Your task to perform on an android device: Go to eBay Image 0: 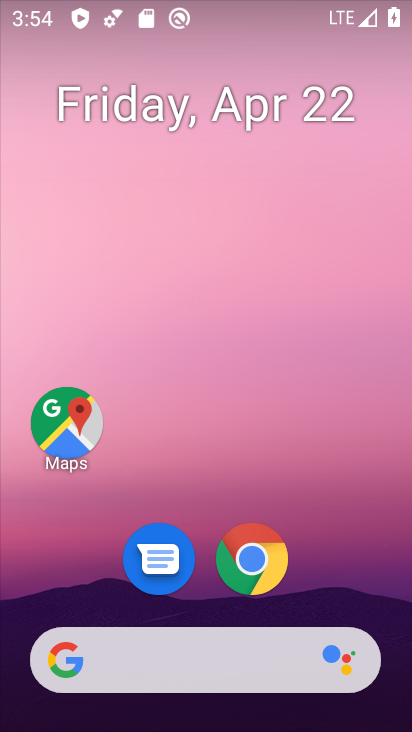
Step 0: click (256, 549)
Your task to perform on an android device: Go to eBay Image 1: 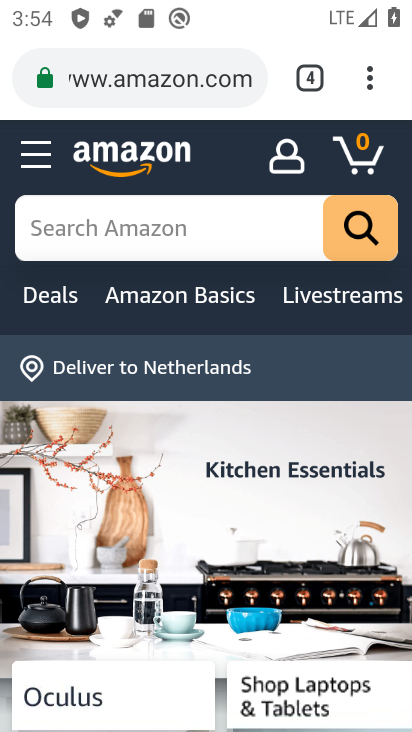
Step 1: click (293, 82)
Your task to perform on an android device: Go to eBay Image 2: 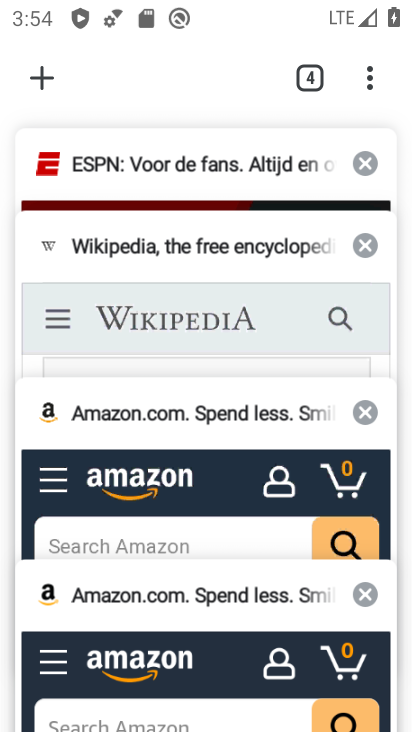
Step 2: click (32, 82)
Your task to perform on an android device: Go to eBay Image 3: 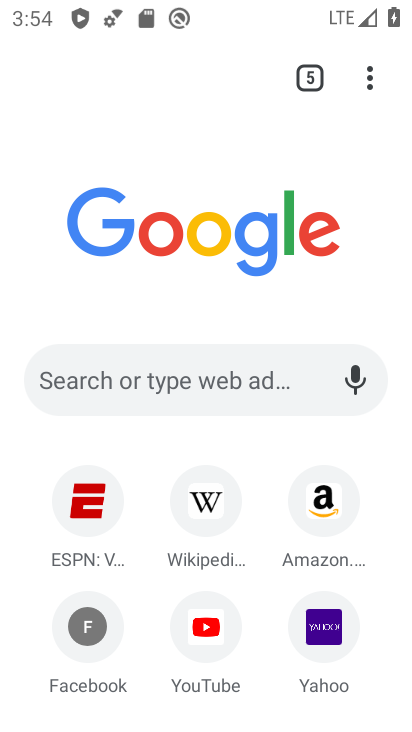
Step 3: click (203, 372)
Your task to perform on an android device: Go to eBay Image 4: 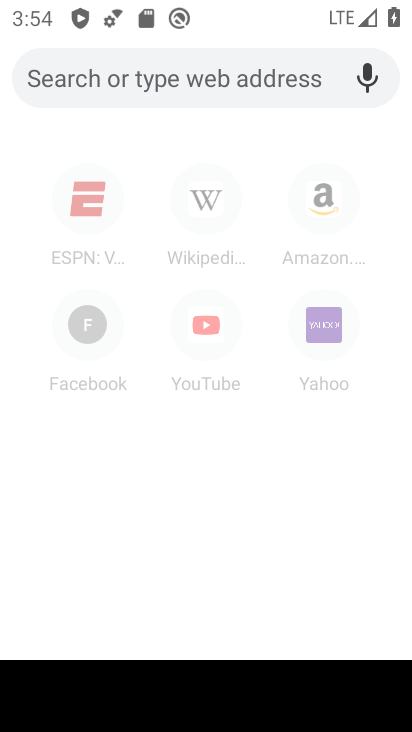
Step 4: type "eBay"
Your task to perform on an android device: Go to eBay Image 5: 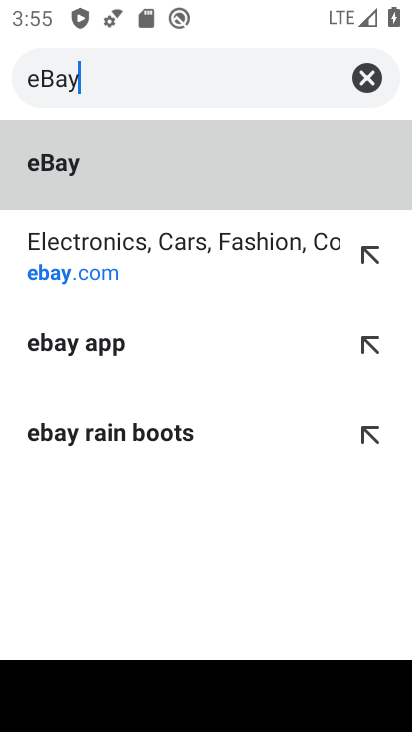
Step 5: click (189, 268)
Your task to perform on an android device: Go to eBay Image 6: 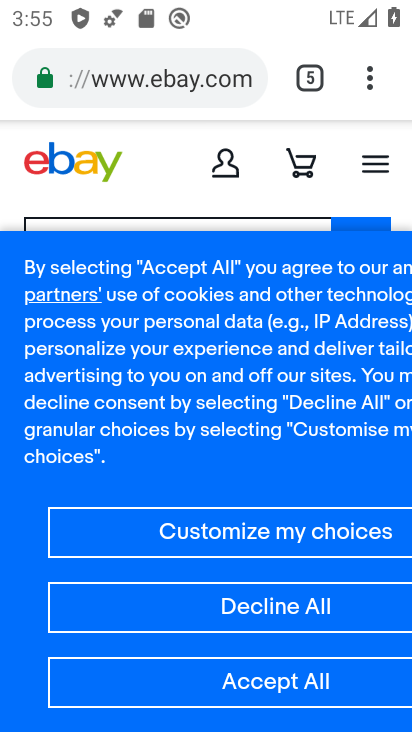
Step 6: task complete